Your task to perform on an android device: Open calendar and show me the third week of next month Image 0: 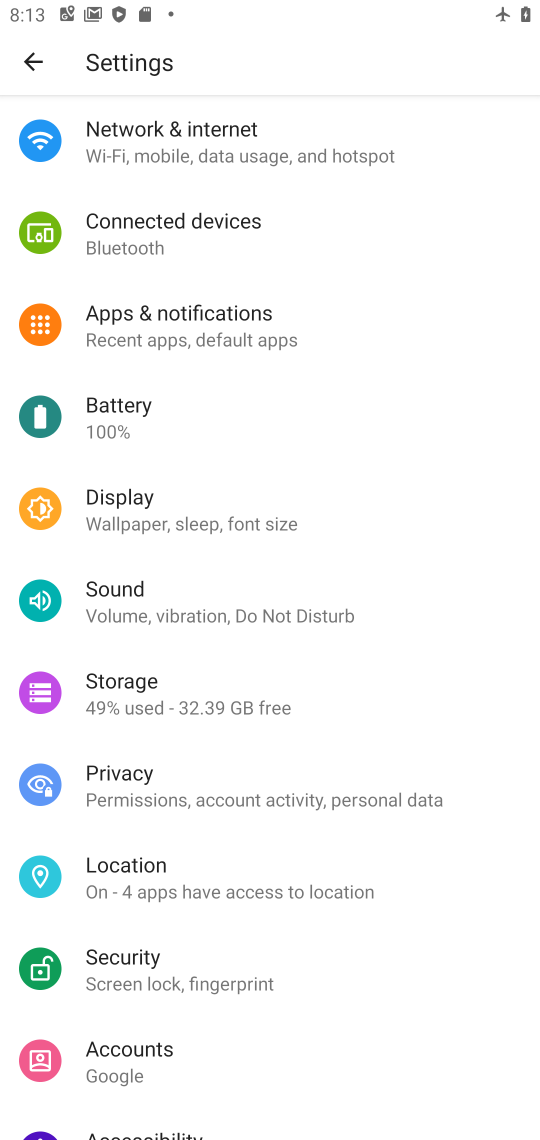
Step 0: press home button
Your task to perform on an android device: Open calendar and show me the third week of next month Image 1: 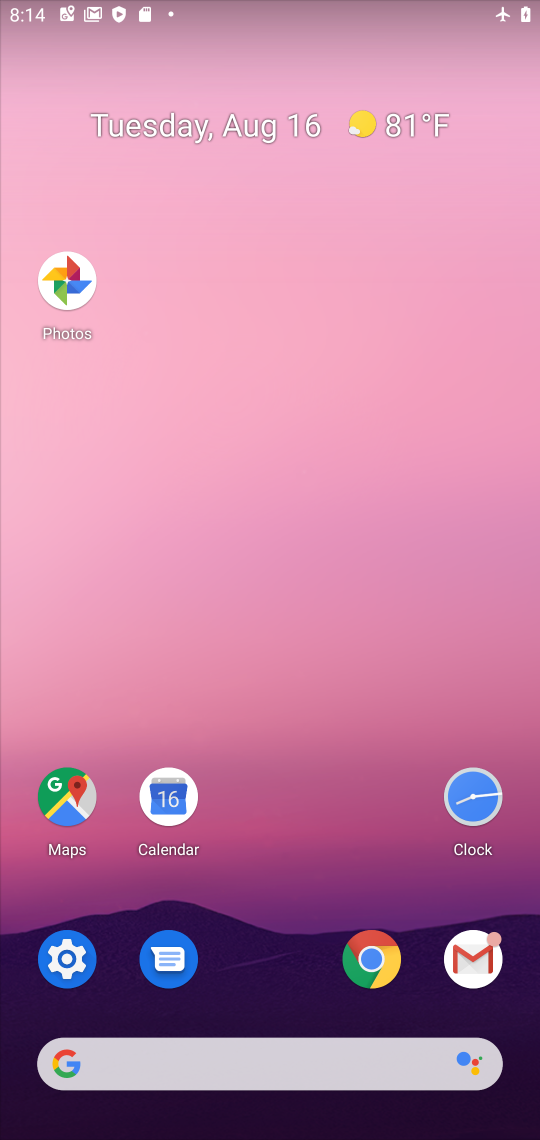
Step 1: click (170, 810)
Your task to perform on an android device: Open calendar and show me the third week of next month Image 2: 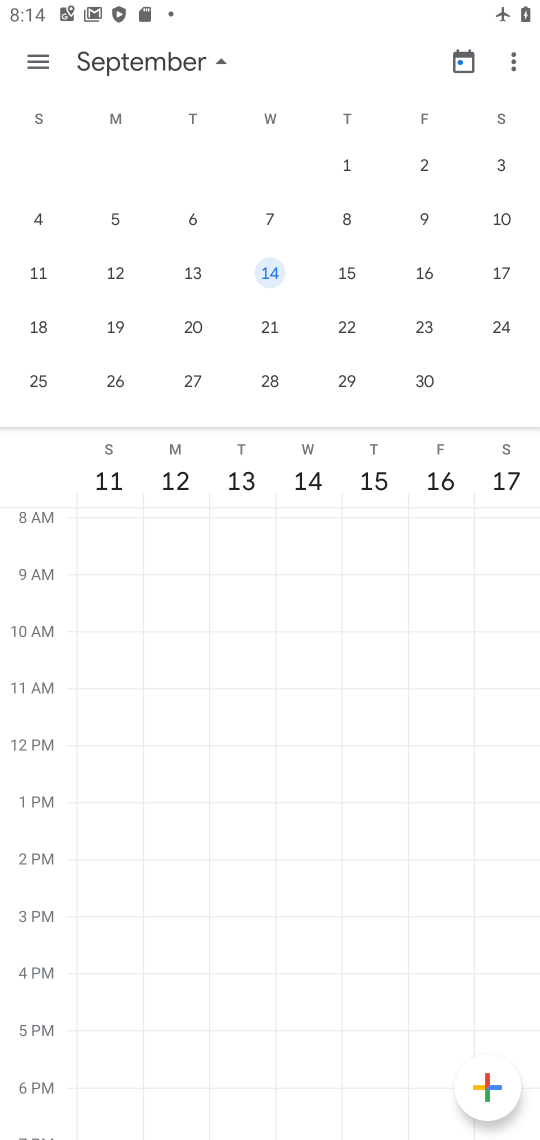
Step 2: task complete